Your task to perform on an android device: all mails in gmail Image 0: 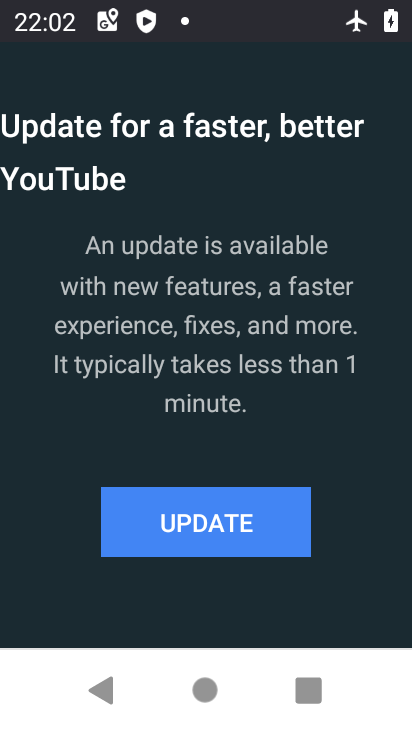
Step 0: press home button
Your task to perform on an android device: all mails in gmail Image 1: 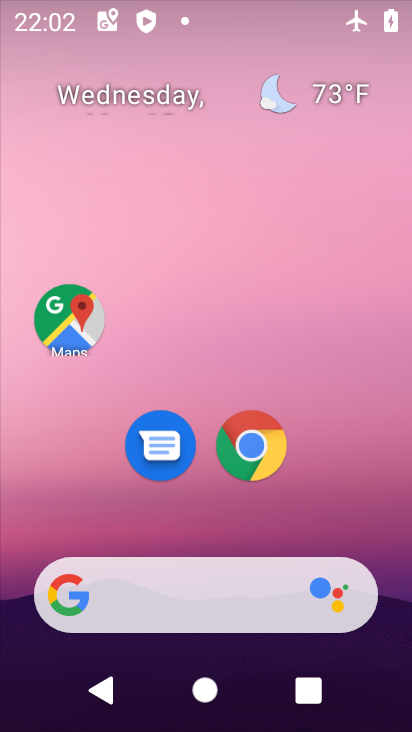
Step 1: drag from (282, 513) to (286, 178)
Your task to perform on an android device: all mails in gmail Image 2: 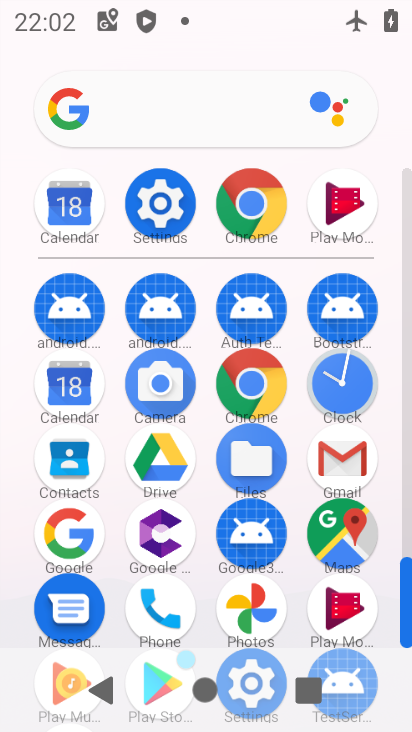
Step 2: click (330, 459)
Your task to perform on an android device: all mails in gmail Image 3: 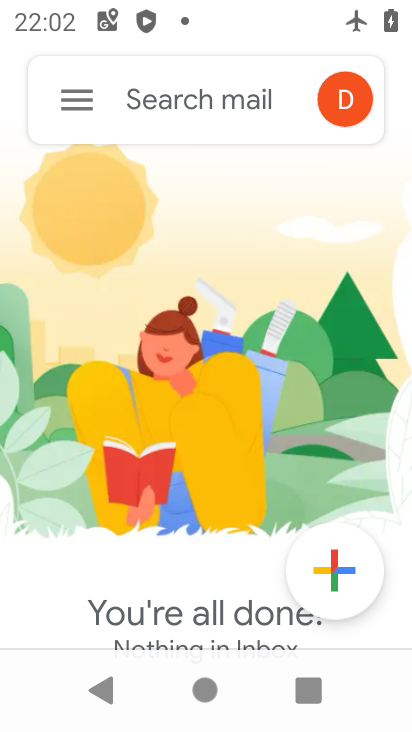
Step 3: click (68, 97)
Your task to perform on an android device: all mails in gmail Image 4: 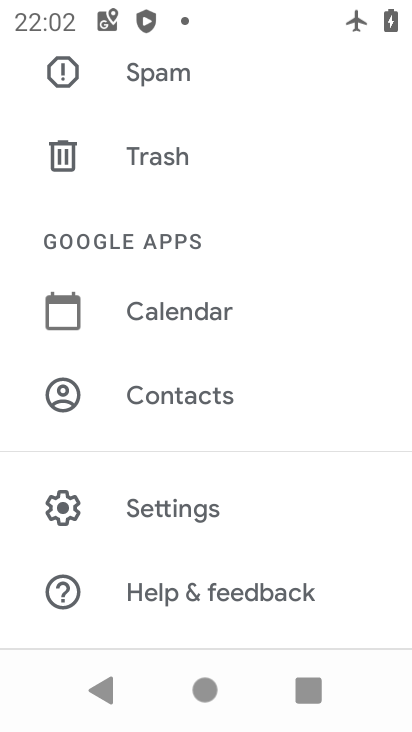
Step 4: drag from (203, 150) to (189, 531)
Your task to perform on an android device: all mails in gmail Image 5: 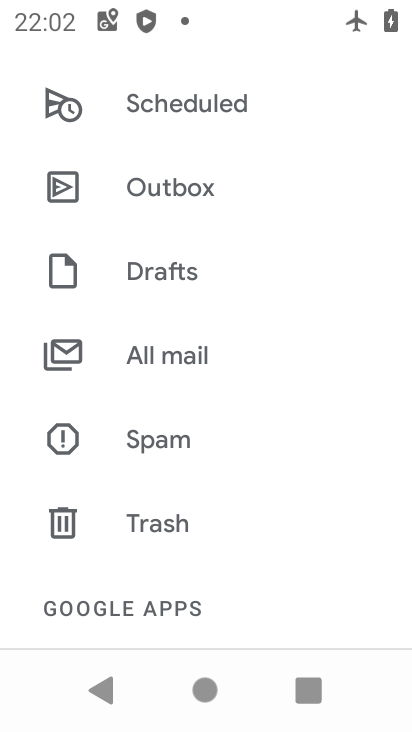
Step 5: click (150, 360)
Your task to perform on an android device: all mails in gmail Image 6: 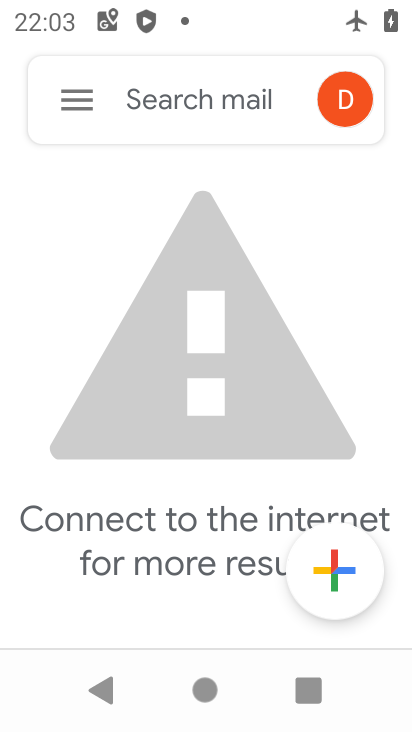
Step 6: task complete